Your task to perform on an android device: Go to Yahoo.com Image 0: 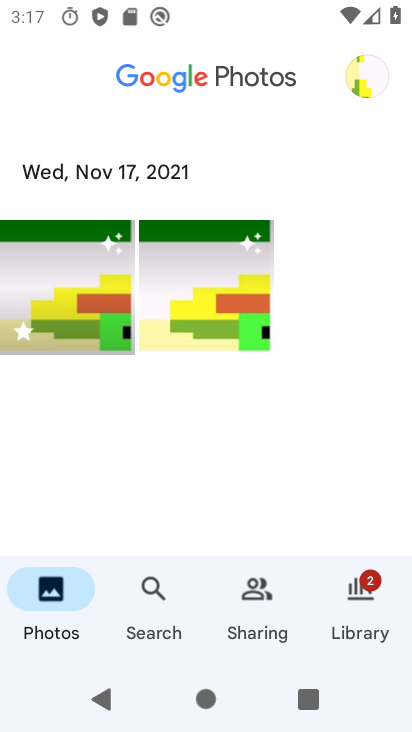
Step 0: press home button
Your task to perform on an android device: Go to Yahoo.com Image 1: 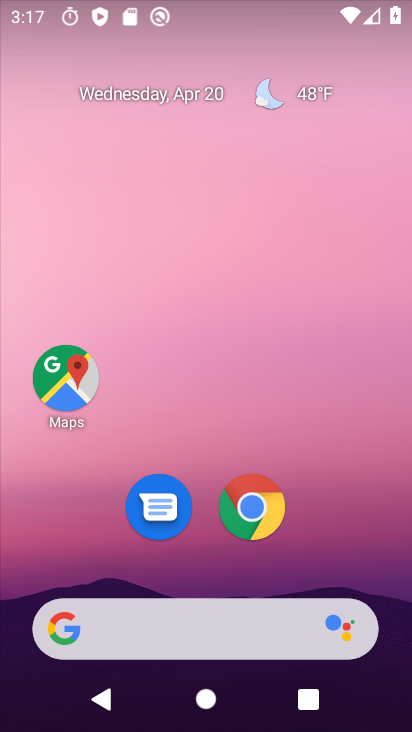
Step 1: click (260, 482)
Your task to perform on an android device: Go to Yahoo.com Image 2: 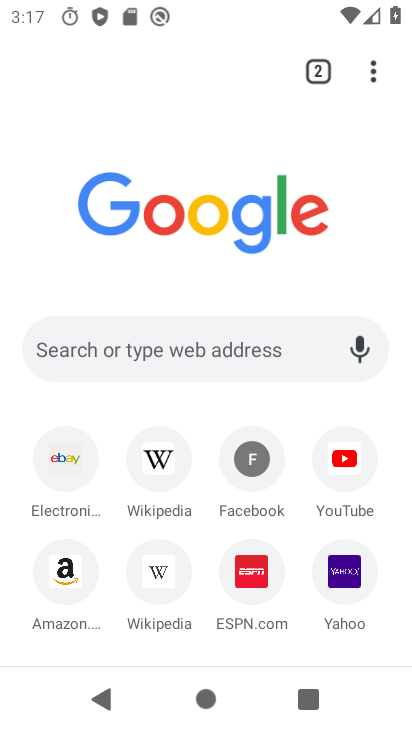
Step 2: click (344, 562)
Your task to perform on an android device: Go to Yahoo.com Image 3: 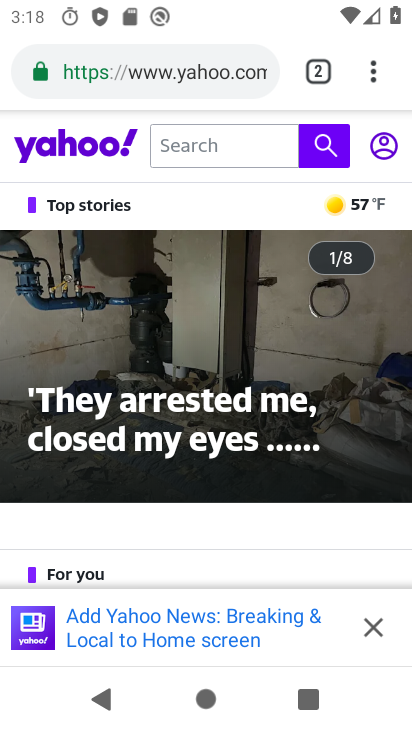
Step 3: task complete